Your task to perform on an android device: Set the phone to "Do not disturb". Image 0: 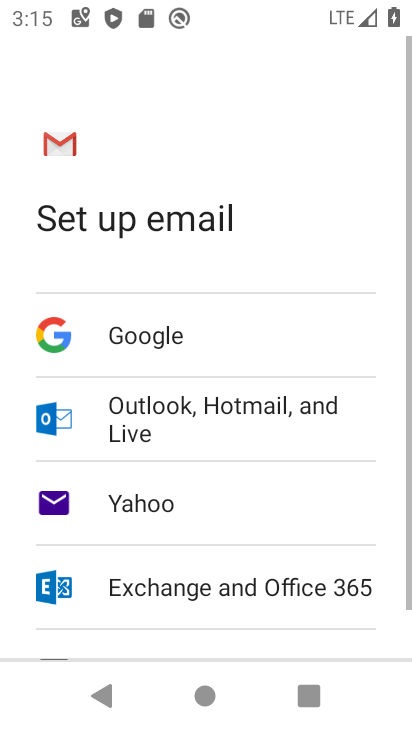
Step 0: press back button
Your task to perform on an android device: Set the phone to "Do not disturb". Image 1: 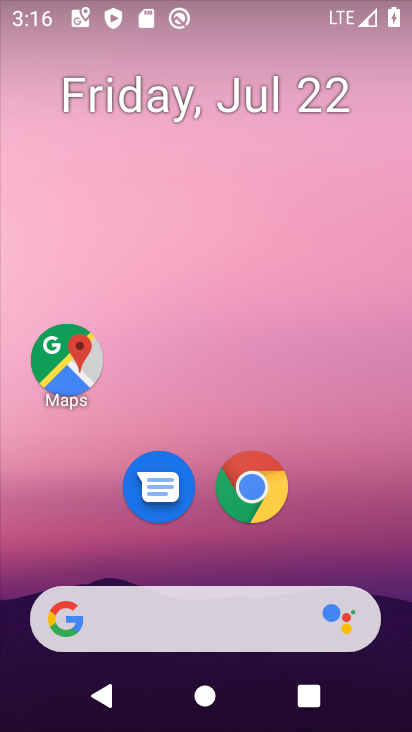
Step 1: drag from (164, 15) to (184, 672)
Your task to perform on an android device: Set the phone to "Do not disturb". Image 2: 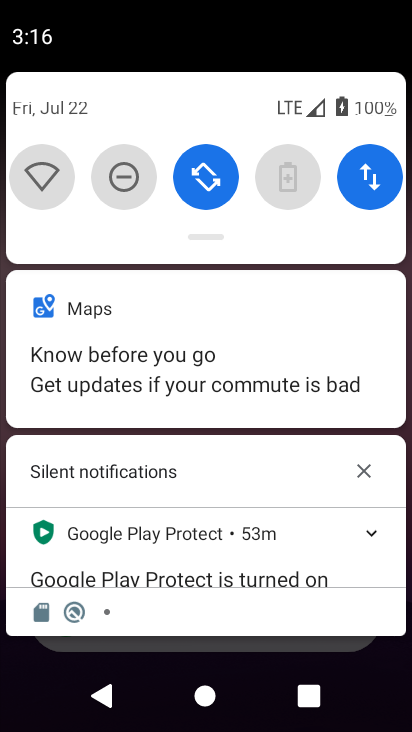
Step 2: click (130, 186)
Your task to perform on an android device: Set the phone to "Do not disturb". Image 3: 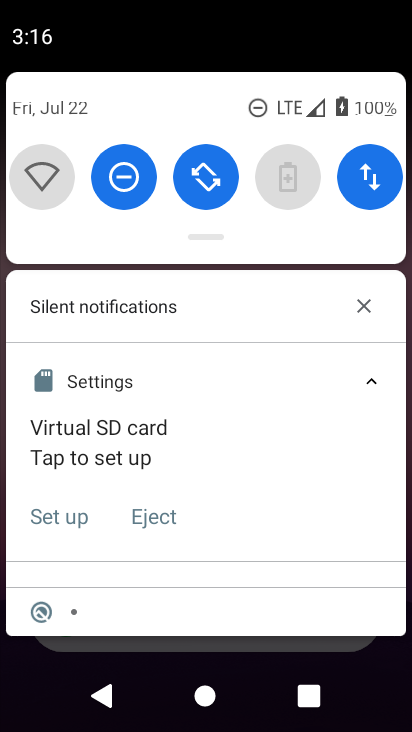
Step 3: task complete